Your task to perform on an android device: turn off notifications settings in the gmail app Image 0: 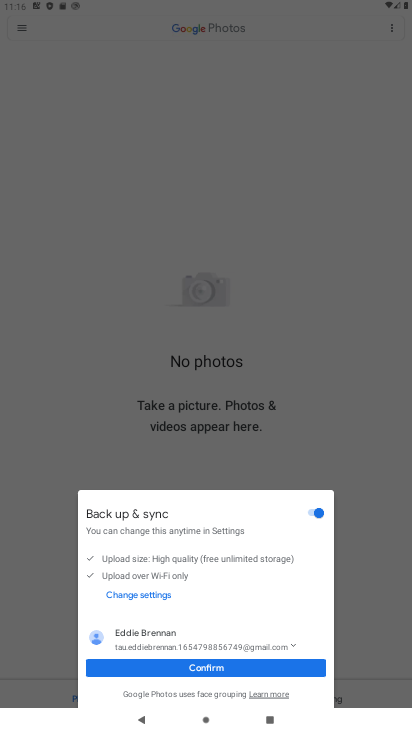
Step 0: press home button
Your task to perform on an android device: turn off notifications settings in the gmail app Image 1: 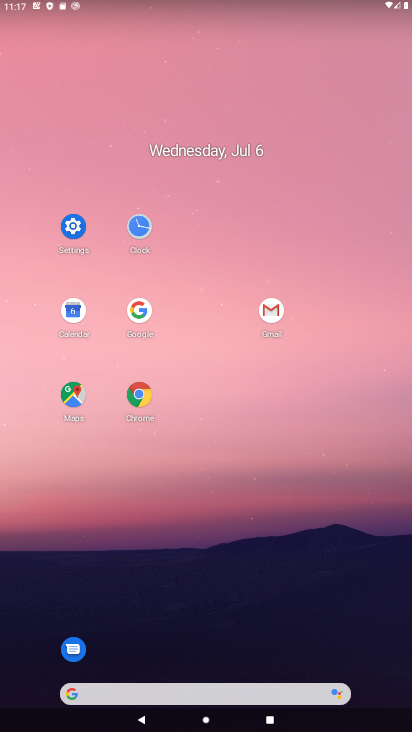
Step 1: click (266, 316)
Your task to perform on an android device: turn off notifications settings in the gmail app Image 2: 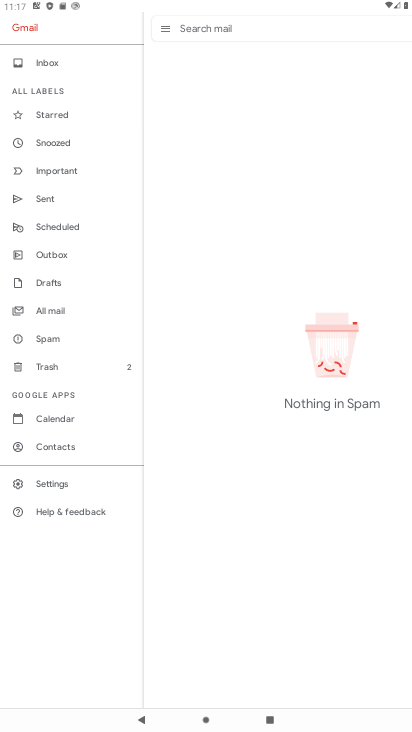
Step 2: click (91, 479)
Your task to perform on an android device: turn off notifications settings in the gmail app Image 3: 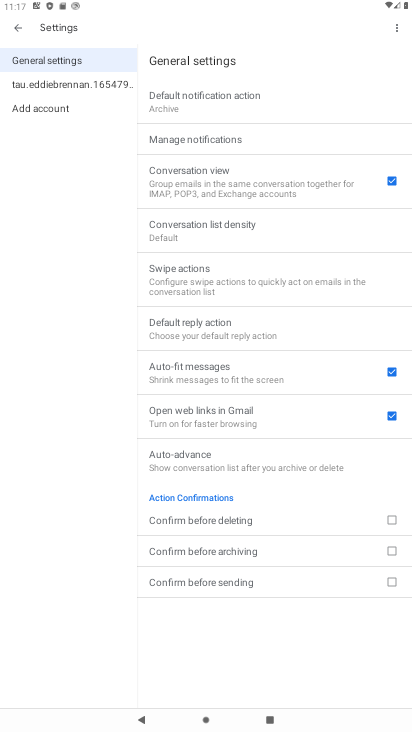
Step 3: click (234, 134)
Your task to perform on an android device: turn off notifications settings in the gmail app Image 4: 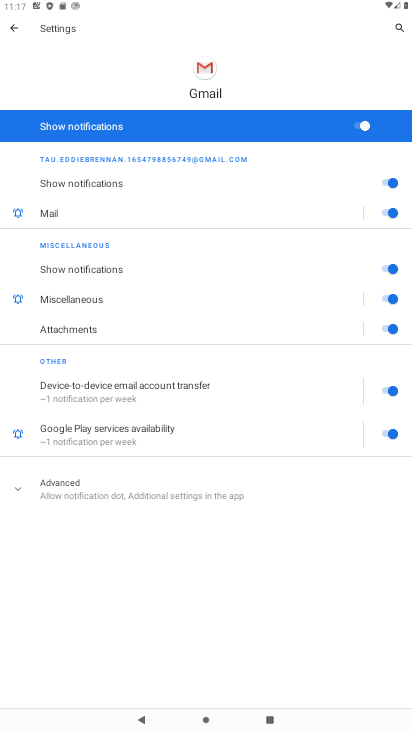
Step 4: click (362, 127)
Your task to perform on an android device: turn off notifications settings in the gmail app Image 5: 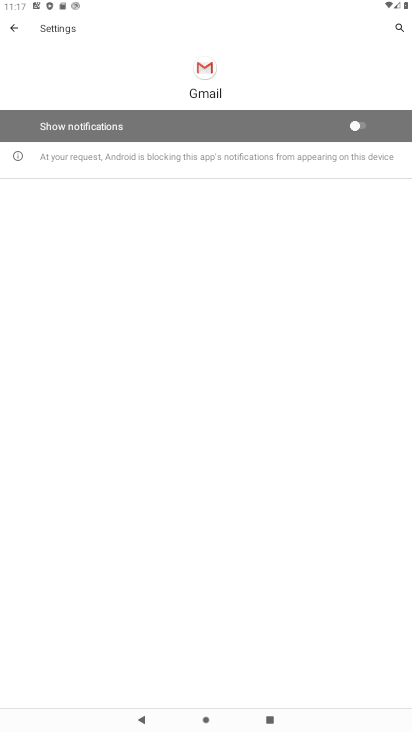
Step 5: task complete